Your task to perform on an android device: Toggle the flashlight Image 0: 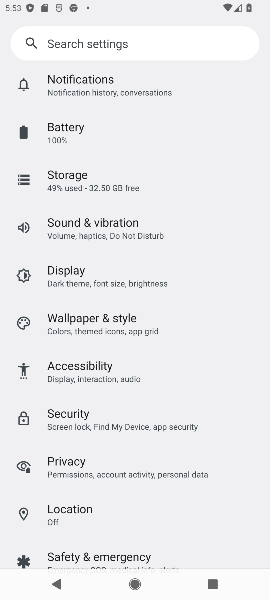
Step 0: task impossible